Your task to perform on an android device: Open privacy settings Image 0: 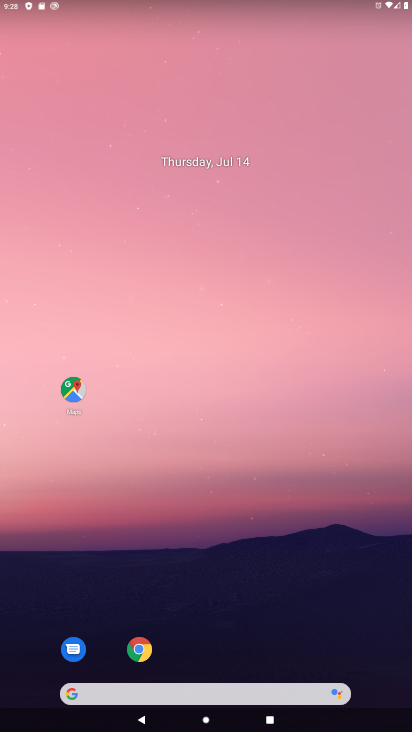
Step 0: drag from (153, 610) to (395, 291)
Your task to perform on an android device: Open privacy settings Image 1: 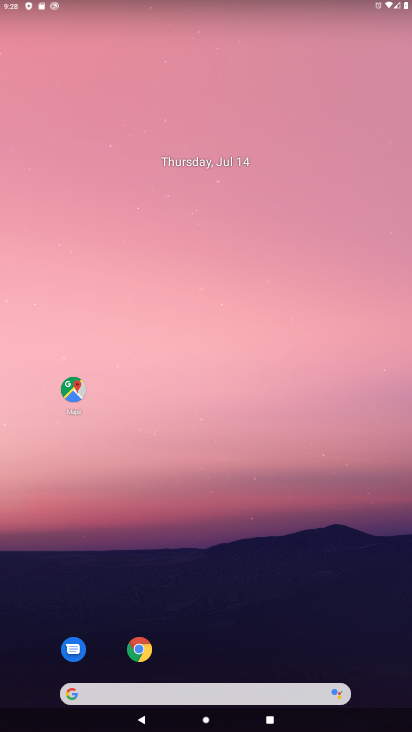
Step 1: click (366, 147)
Your task to perform on an android device: Open privacy settings Image 2: 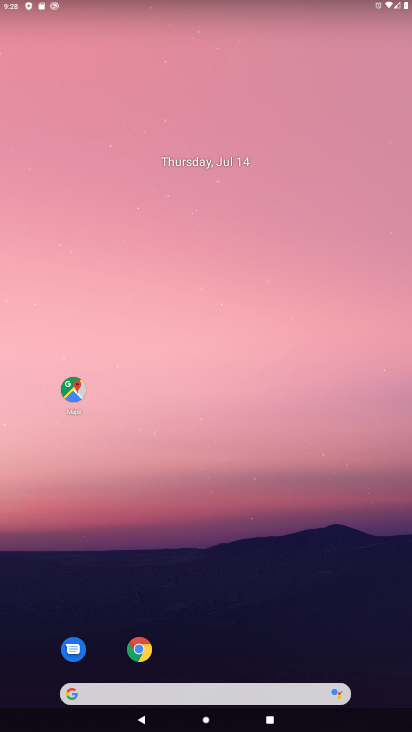
Step 2: drag from (91, 729) to (389, 8)
Your task to perform on an android device: Open privacy settings Image 3: 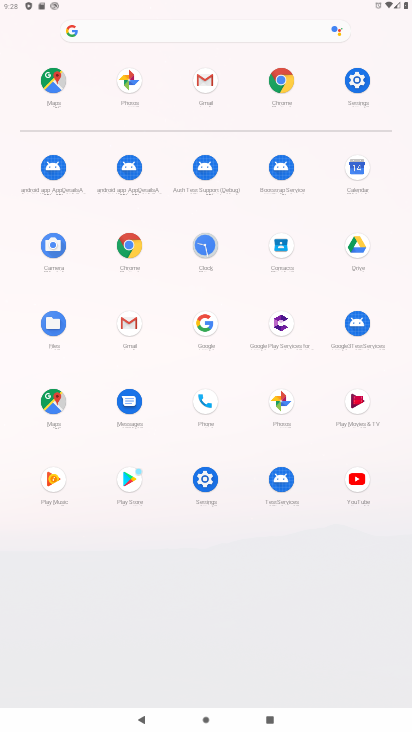
Step 3: click (362, 85)
Your task to perform on an android device: Open privacy settings Image 4: 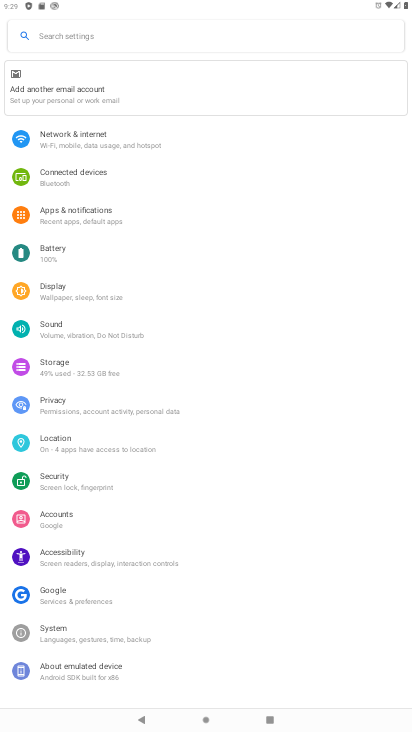
Step 4: click (78, 411)
Your task to perform on an android device: Open privacy settings Image 5: 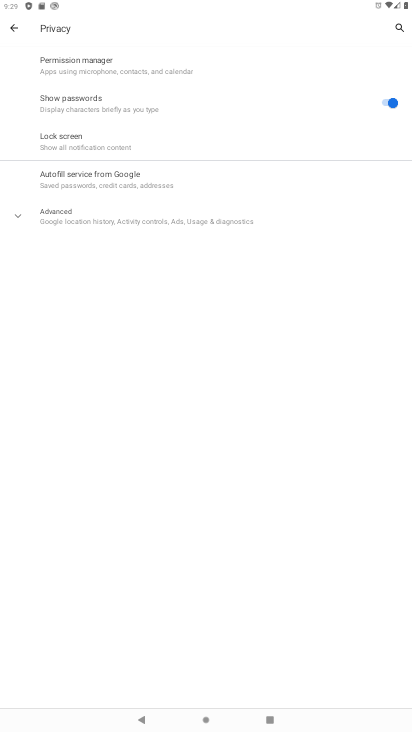
Step 5: task complete